Your task to perform on an android device: Empty the shopping cart on walmart. Add "bose soundsport free" to the cart on walmart Image 0: 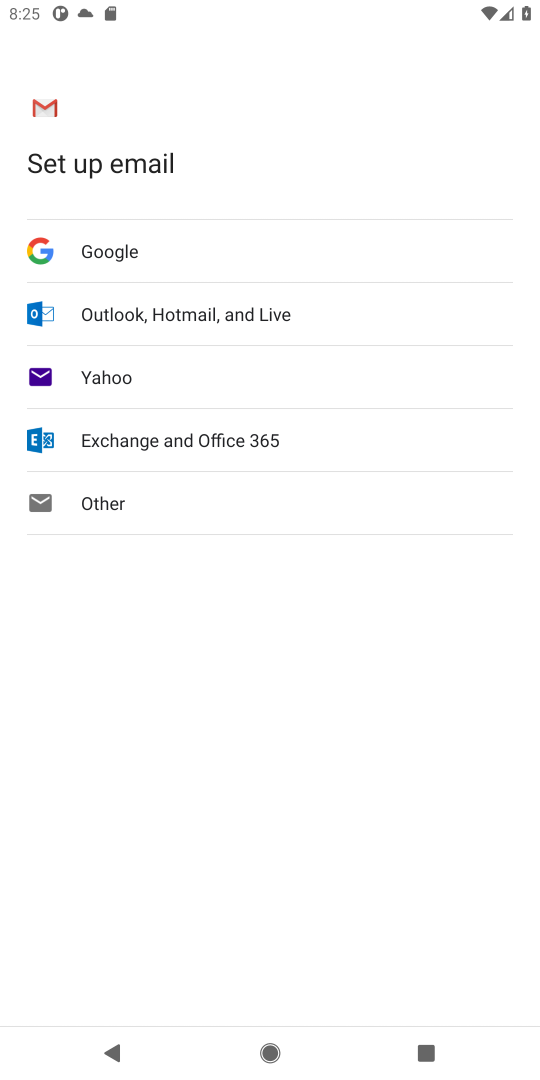
Step 0: press home button
Your task to perform on an android device: Empty the shopping cart on walmart. Add "bose soundsport free" to the cart on walmart Image 1: 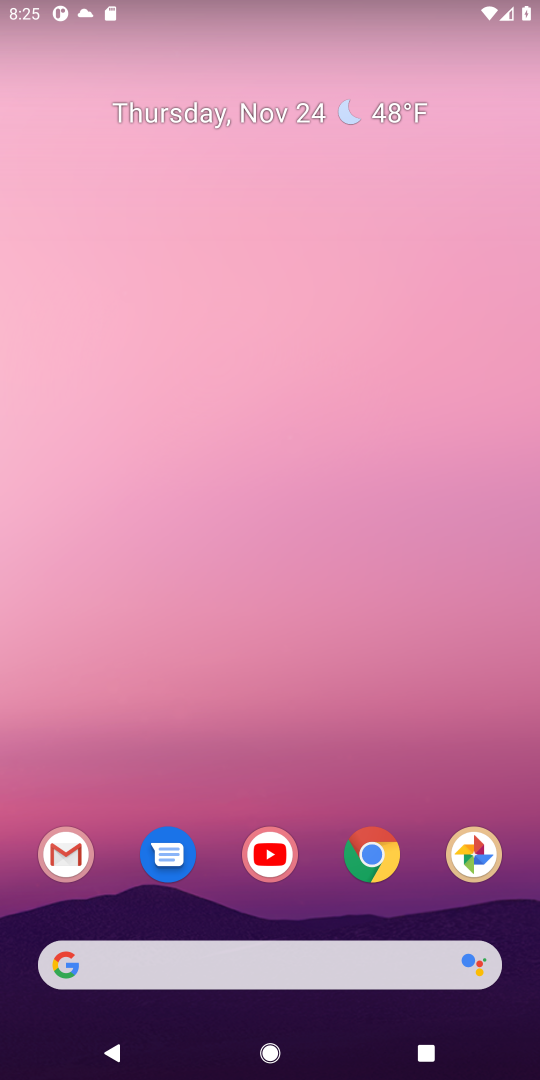
Step 1: click (388, 866)
Your task to perform on an android device: Empty the shopping cart on walmart. Add "bose soundsport free" to the cart on walmart Image 2: 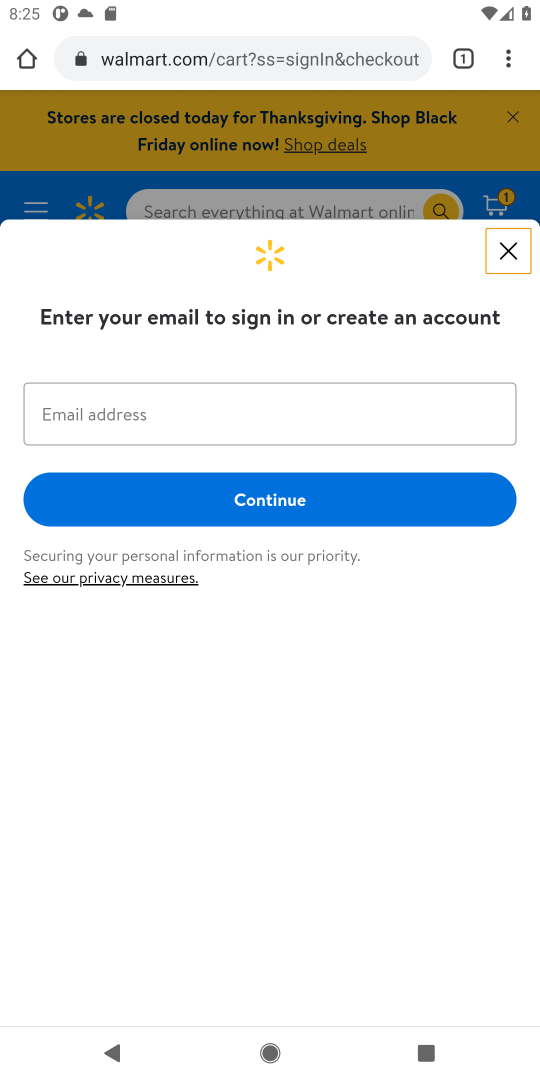
Step 2: click (511, 266)
Your task to perform on an android device: Empty the shopping cart on walmart. Add "bose soundsport free" to the cart on walmart Image 3: 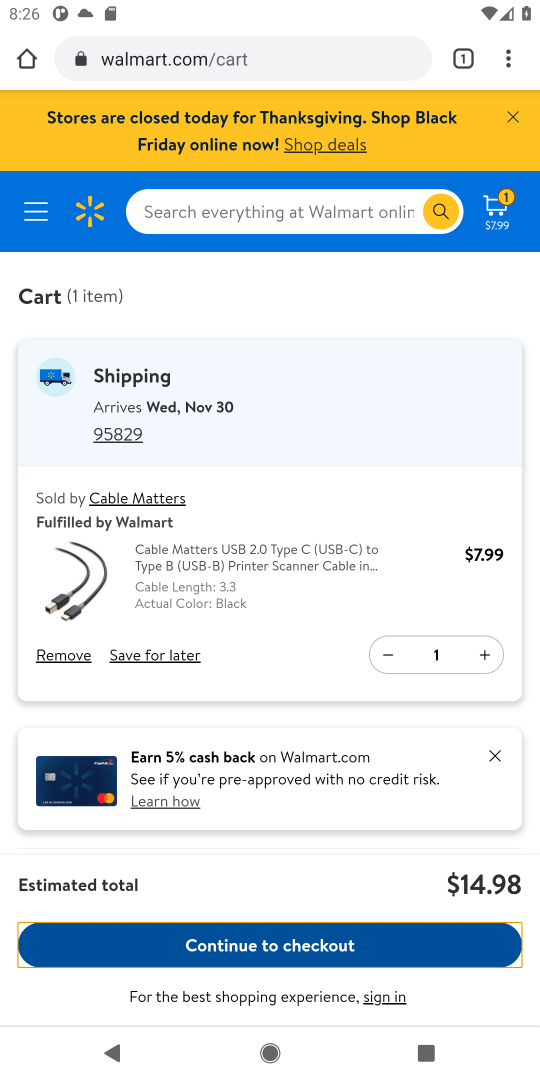
Step 3: click (61, 662)
Your task to perform on an android device: Empty the shopping cart on walmart. Add "bose soundsport free" to the cart on walmart Image 4: 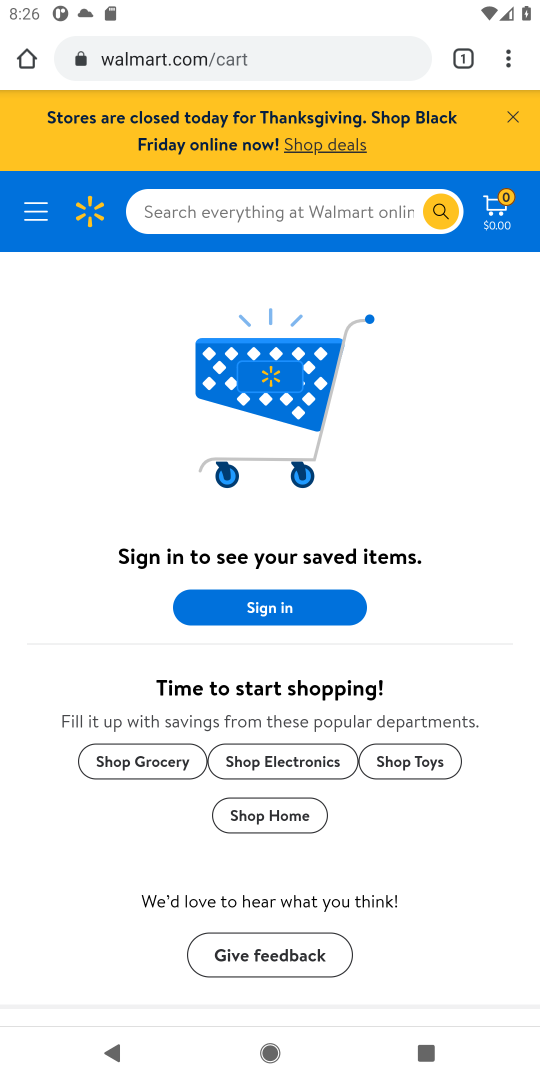
Step 4: click (261, 213)
Your task to perform on an android device: Empty the shopping cart on walmart. Add "bose soundsport free" to the cart on walmart Image 5: 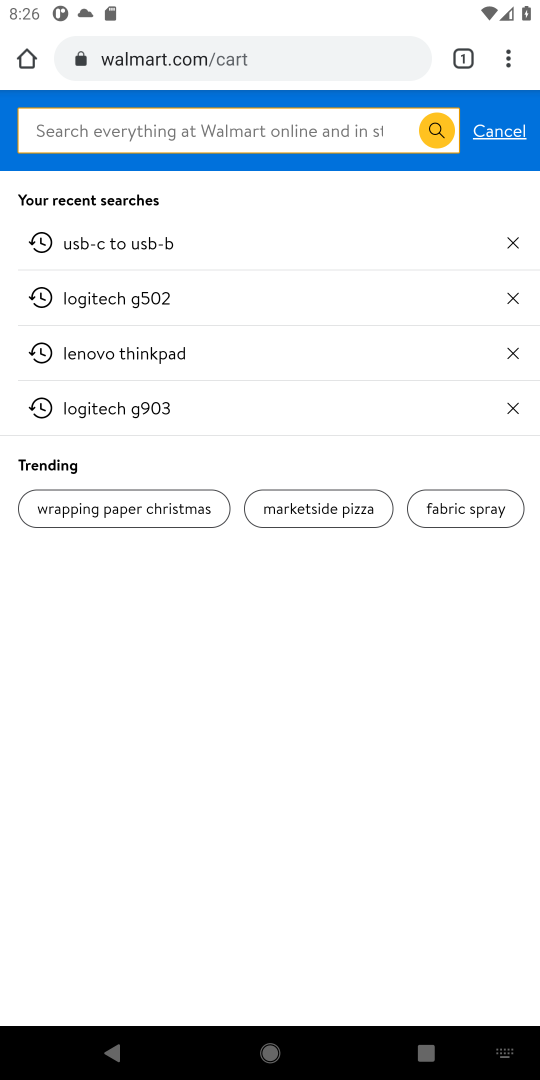
Step 5: type "bose soundsport free"
Your task to perform on an android device: Empty the shopping cart on walmart. Add "bose soundsport free" to the cart on walmart Image 6: 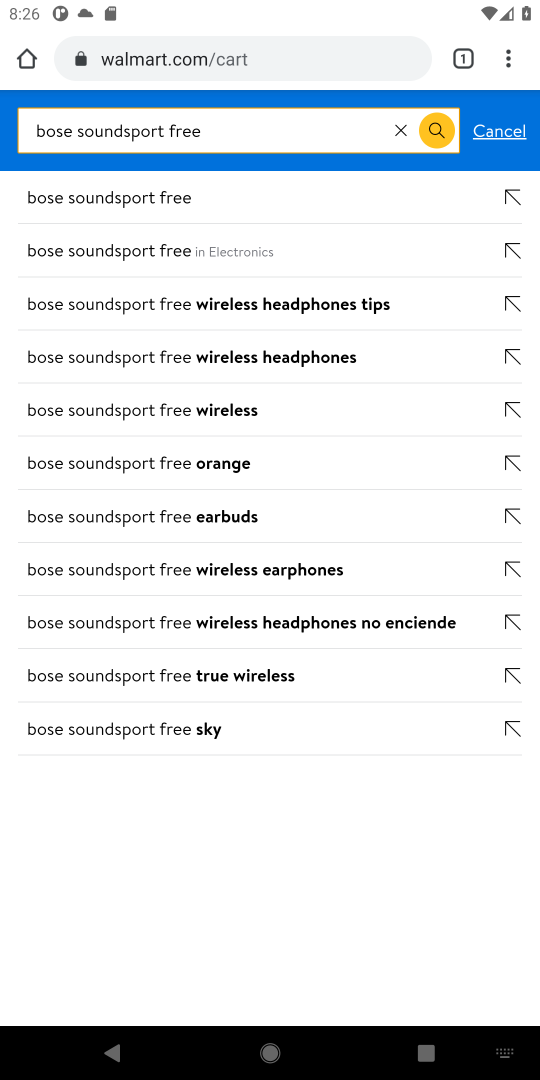
Step 6: click (133, 194)
Your task to perform on an android device: Empty the shopping cart on walmart. Add "bose soundsport free" to the cart on walmart Image 7: 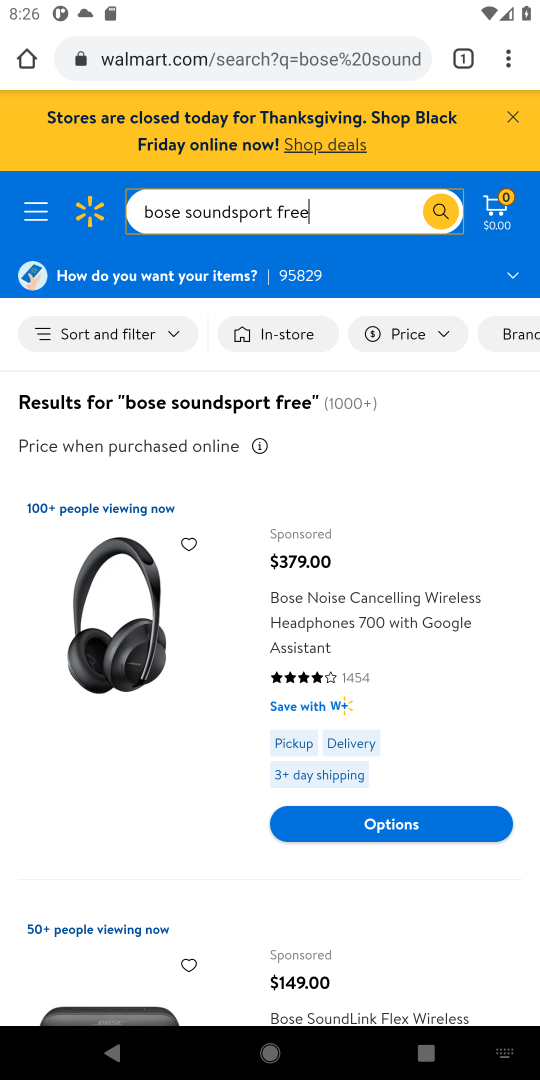
Step 7: task complete